Your task to perform on an android device: Search for vegetarian restaurants on Maps Image 0: 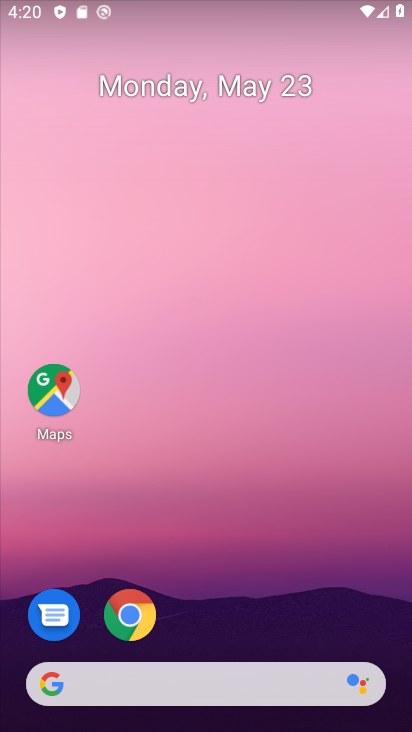
Step 0: click (44, 385)
Your task to perform on an android device: Search for vegetarian restaurants on Maps Image 1: 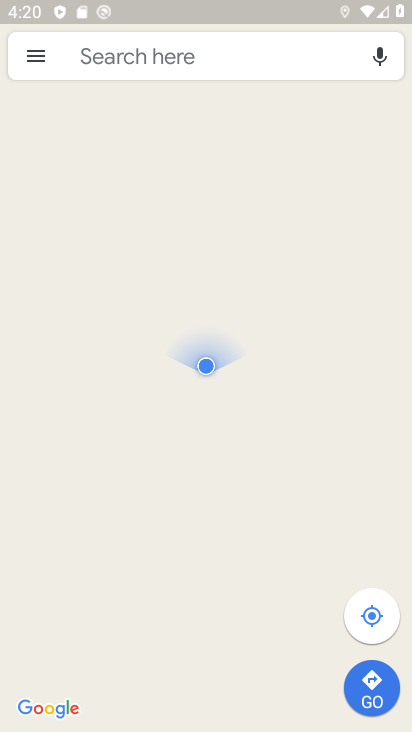
Step 1: click (80, 62)
Your task to perform on an android device: Search for vegetarian restaurants on Maps Image 2: 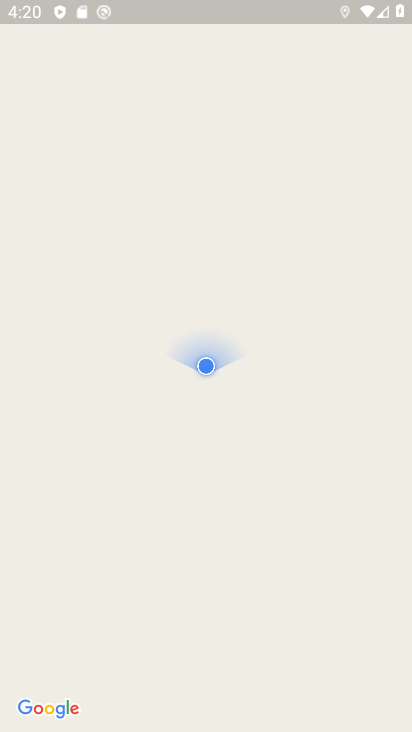
Step 2: type " vegetarian restaurants"
Your task to perform on an android device: Search for vegetarian restaurants on Maps Image 3: 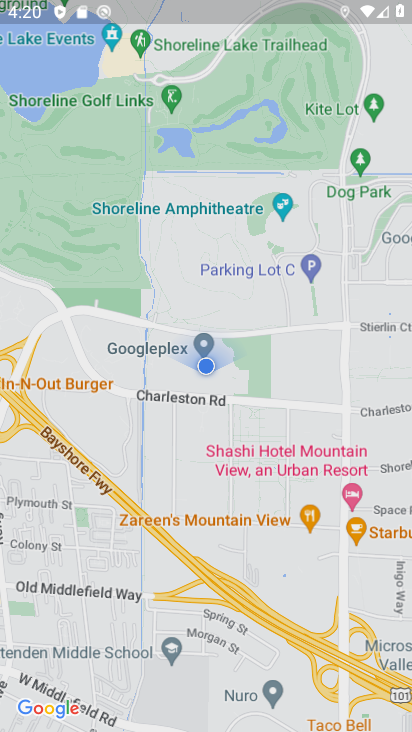
Step 3: drag from (254, 187) to (220, 422)
Your task to perform on an android device: Search for vegetarian restaurants on Maps Image 4: 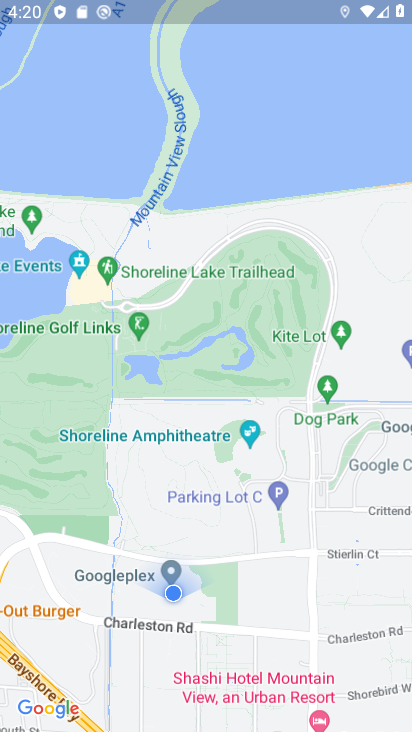
Step 4: press back button
Your task to perform on an android device: Search for vegetarian restaurants on Maps Image 5: 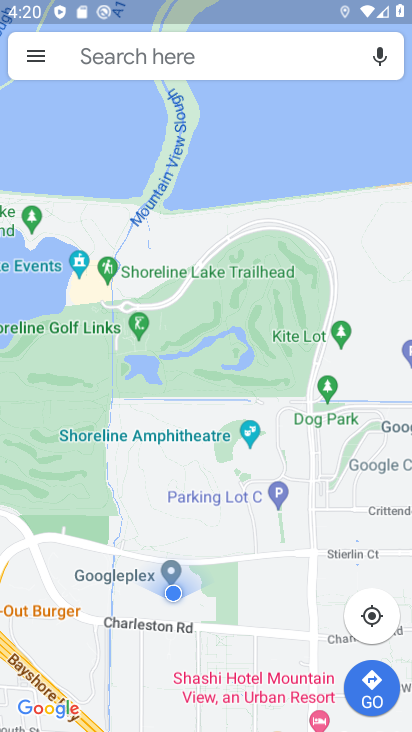
Step 5: click (239, 56)
Your task to perform on an android device: Search for vegetarian restaurants on Maps Image 6: 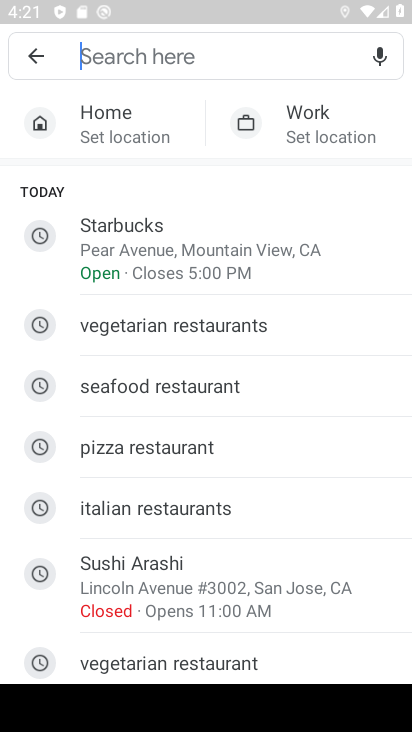
Step 6: type " vegetarian restaurants"
Your task to perform on an android device: Search for vegetarian restaurants on Maps Image 7: 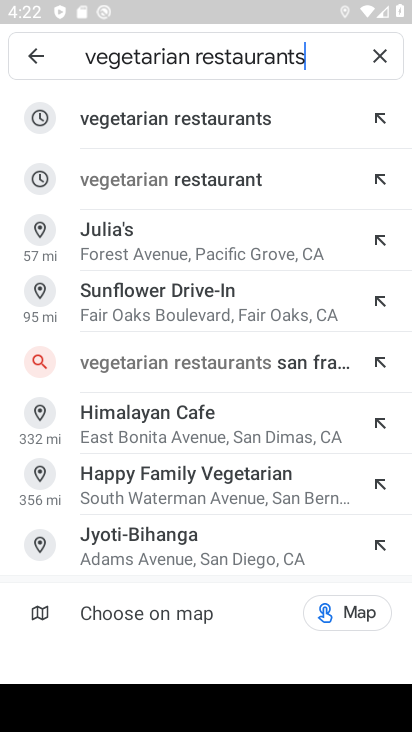
Step 7: click (201, 115)
Your task to perform on an android device: Search for vegetarian restaurants on Maps Image 8: 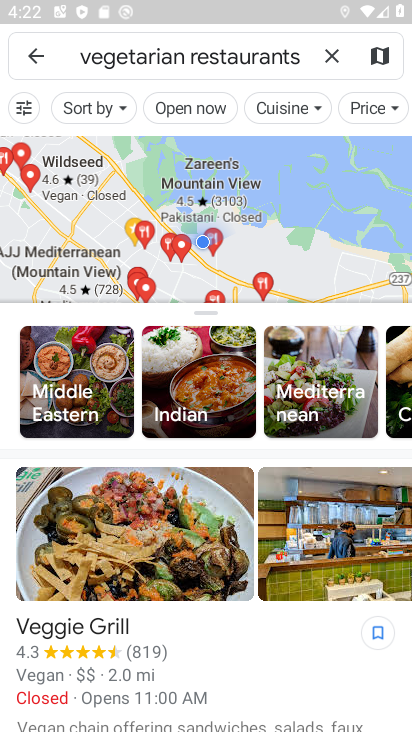
Step 8: task complete